Your task to perform on an android device: check battery use Image 0: 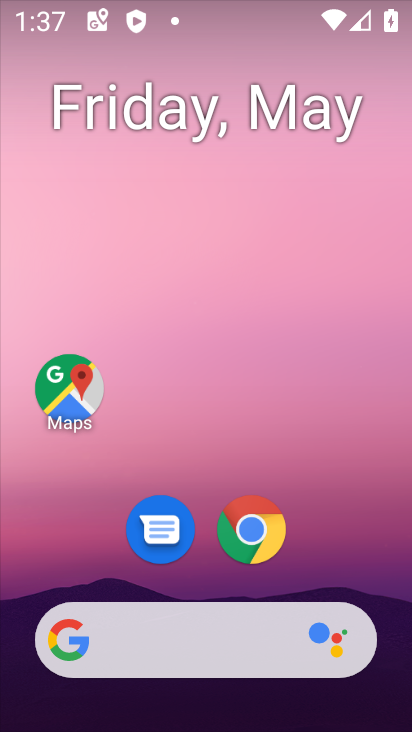
Step 0: drag from (332, 559) to (280, 0)
Your task to perform on an android device: check battery use Image 1: 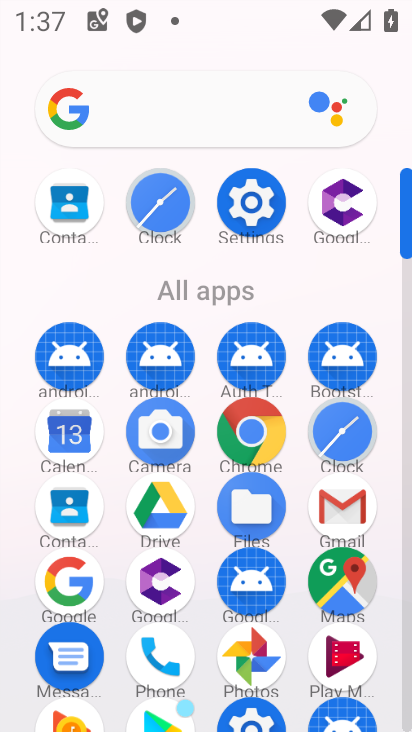
Step 1: click (246, 189)
Your task to perform on an android device: check battery use Image 2: 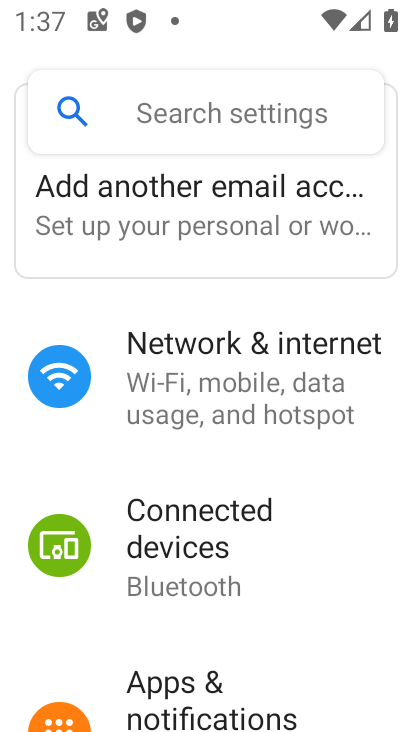
Step 2: drag from (258, 659) to (231, 271)
Your task to perform on an android device: check battery use Image 3: 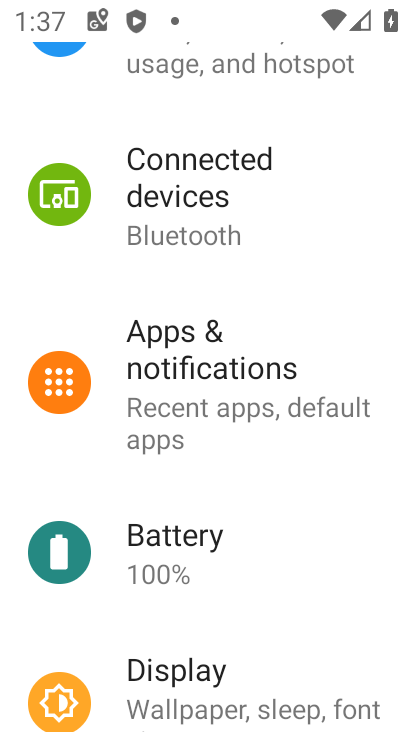
Step 3: click (184, 551)
Your task to perform on an android device: check battery use Image 4: 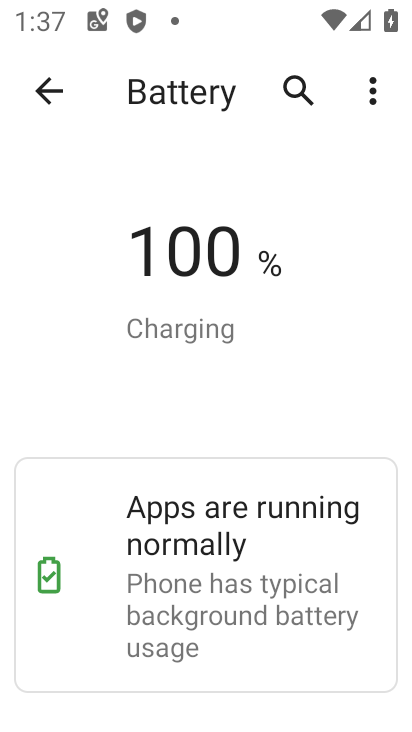
Step 4: task complete